Your task to perform on an android device: Go to sound settings Image 0: 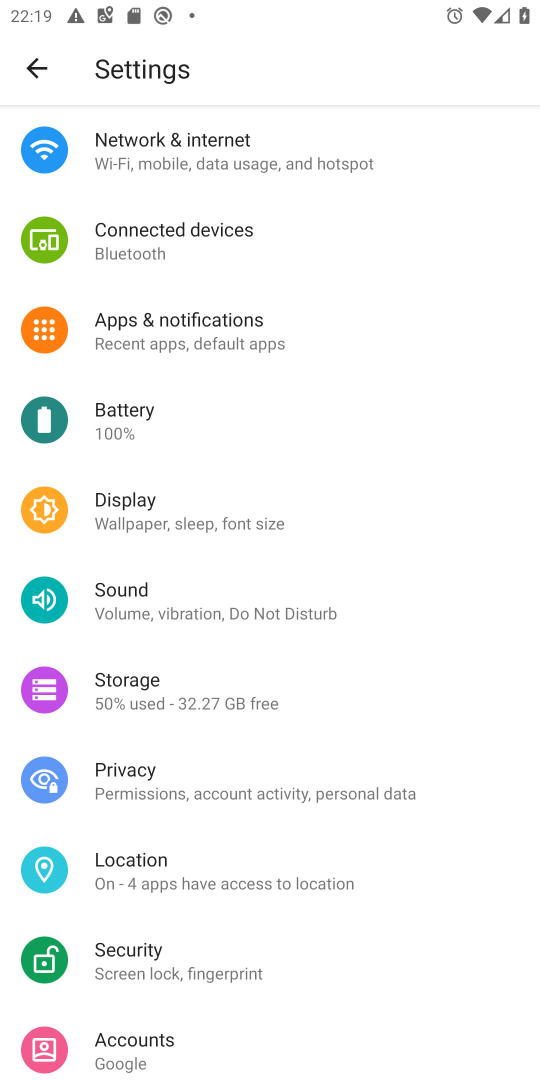
Step 0: press home button
Your task to perform on an android device: Go to sound settings Image 1: 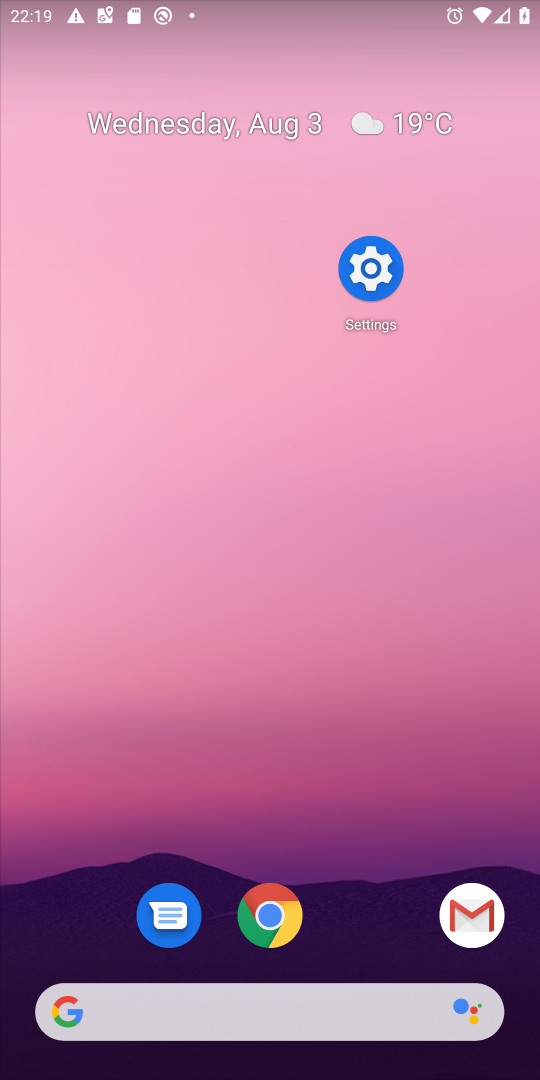
Step 1: drag from (372, 1017) to (298, 563)
Your task to perform on an android device: Go to sound settings Image 2: 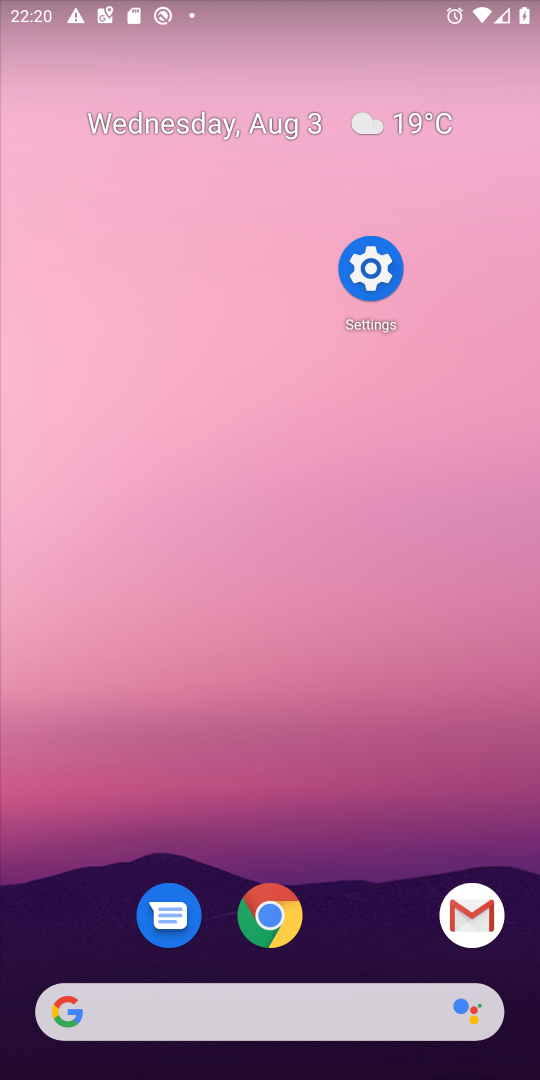
Step 2: drag from (306, 1076) to (308, 463)
Your task to perform on an android device: Go to sound settings Image 3: 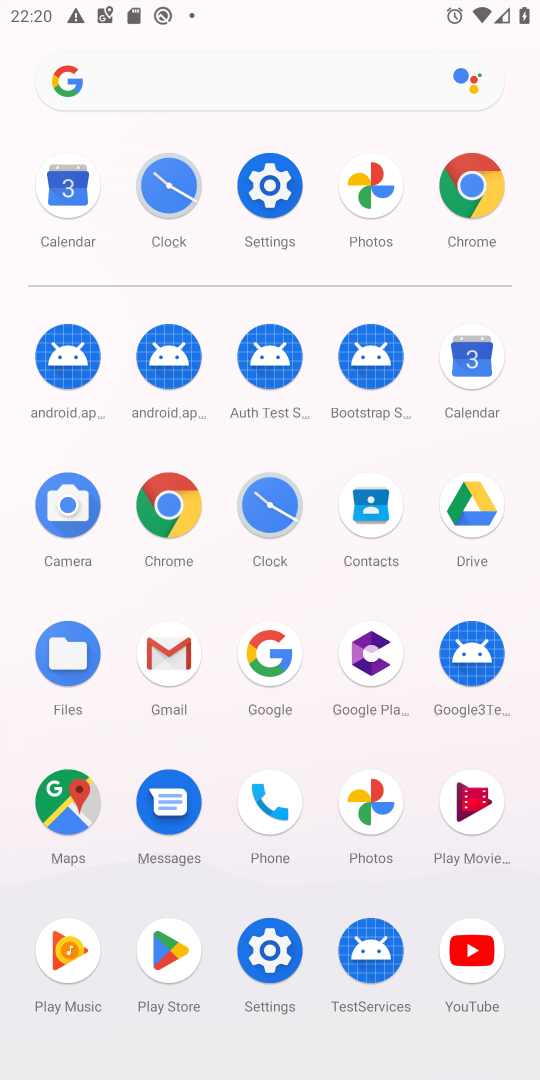
Step 3: click (266, 218)
Your task to perform on an android device: Go to sound settings Image 4: 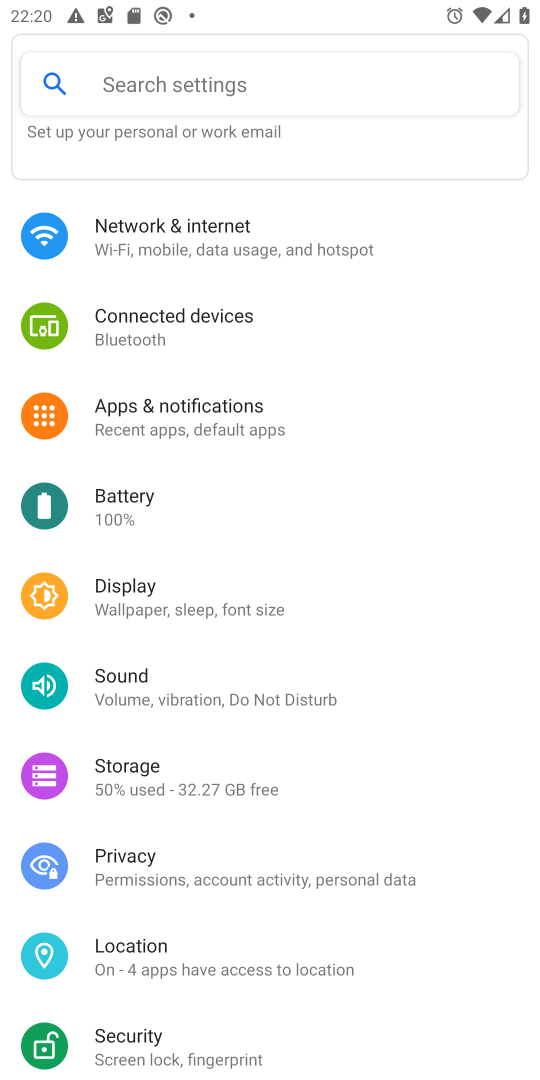
Step 4: click (174, 680)
Your task to perform on an android device: Go to sound settings Image 5: 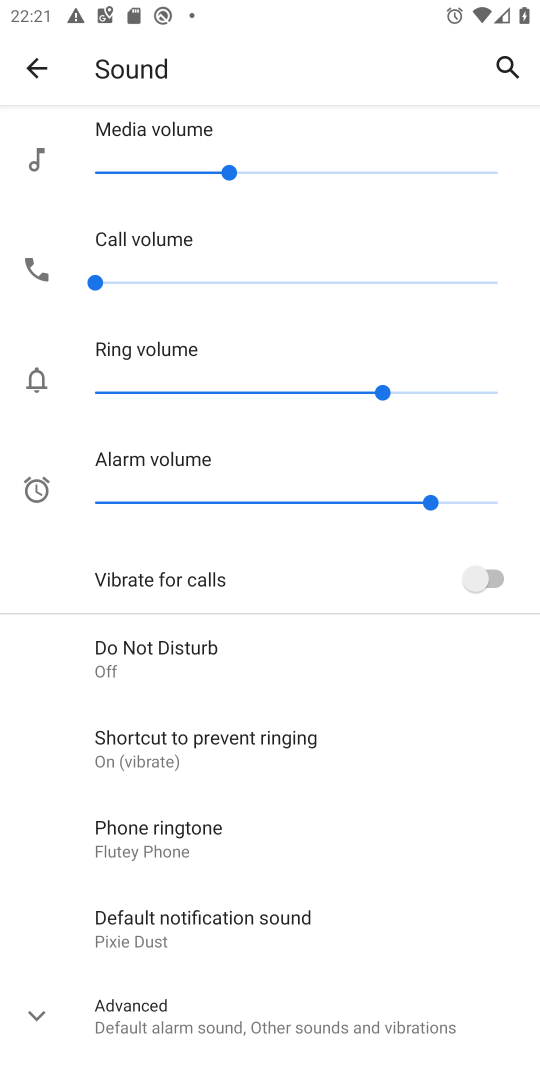
Step 5: task complete